Your task to perform on an android device: turn on showing notifications on the lock screen Image 0: 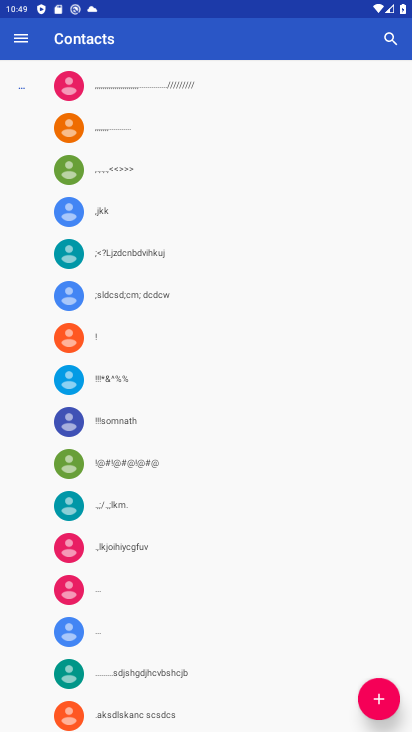
Step 0: press home button
Your task to perform on an android device: turn on showing notifications on the lock screen Image 1: 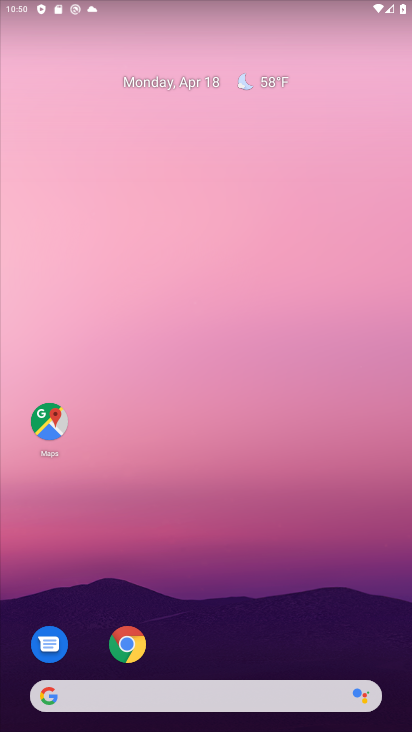
Step 1: drag from (163, 634) to (181, 208)
Your task to perform on an android device: turn on showing notifications on the lock screen Image 2: 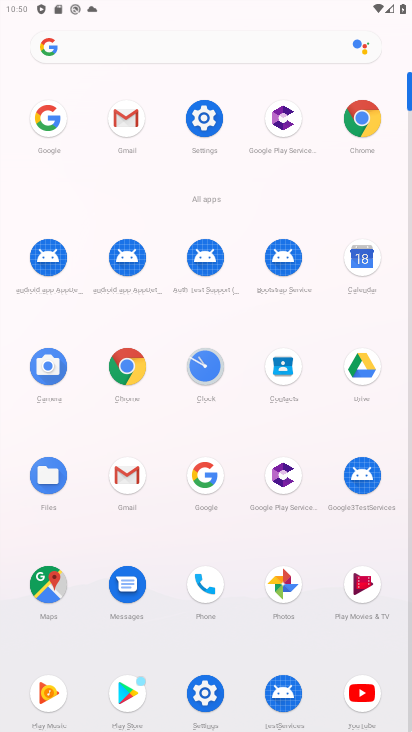
Step 2: click (188, 125)
Your task to perform on an android device: turn on showing notifications on the lock screen Image 3: 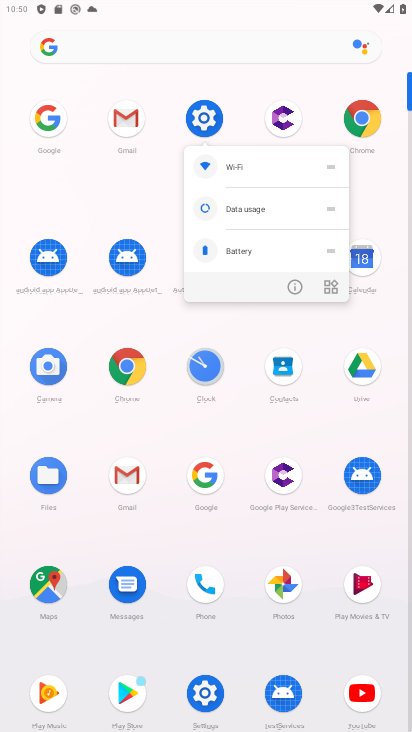
Step 3: click (293, 280)
Your task to perform on an android device: turn on showing notifications on the lock screen Image 4: 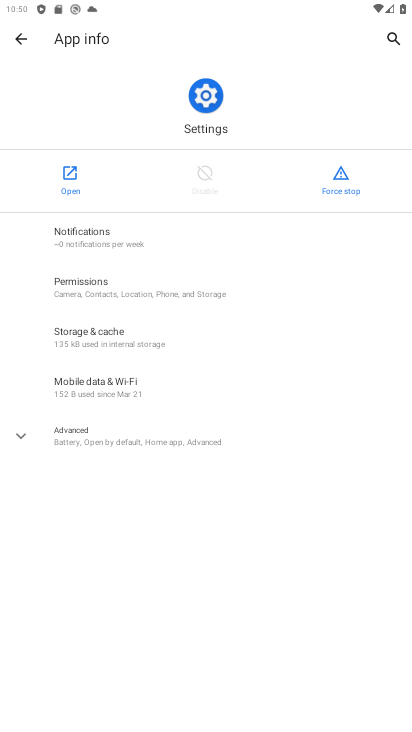
Step 4: click (63, 187)
Your task to perform on an android device: turn on showing notifications on the lock screen Image 5: 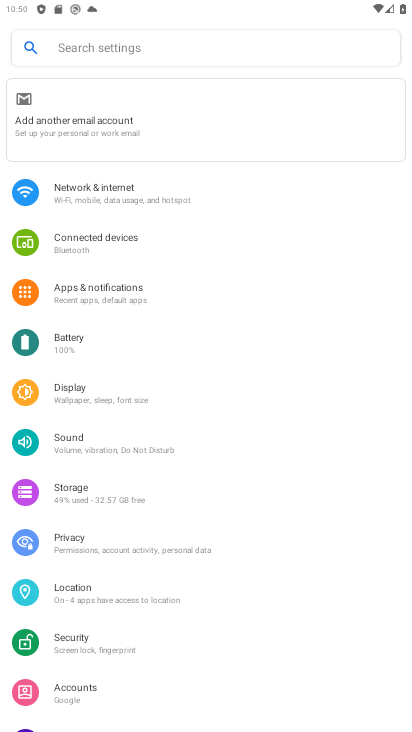
Step 5: click (130, 296)
Your task to perform on an android device: turn on showing notifications on the lock screen Image 6: 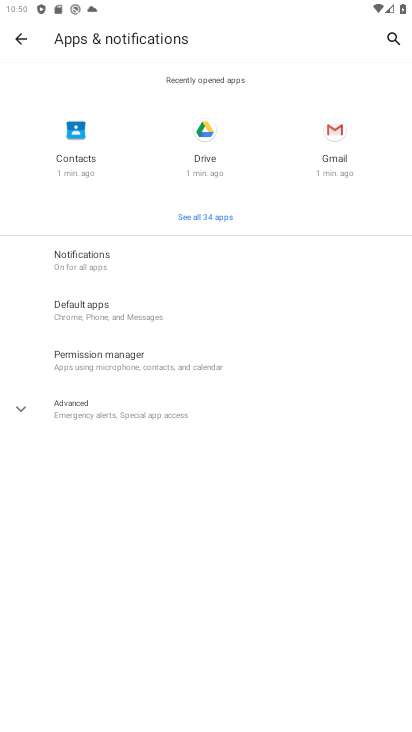
Step 6: click (105, 270)
Your task to perform on an android device: turn on showing notifications on the lock screen Image 7: 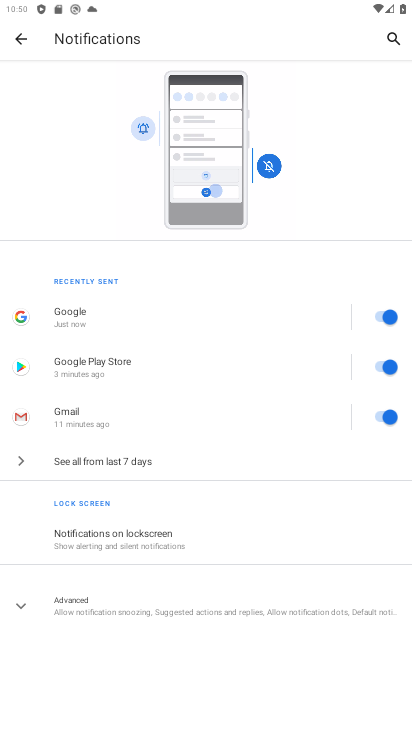
Step 7: click (151, 553)
Your task to perform on an android device: turn on showing notifications on the lock screen Image 8: 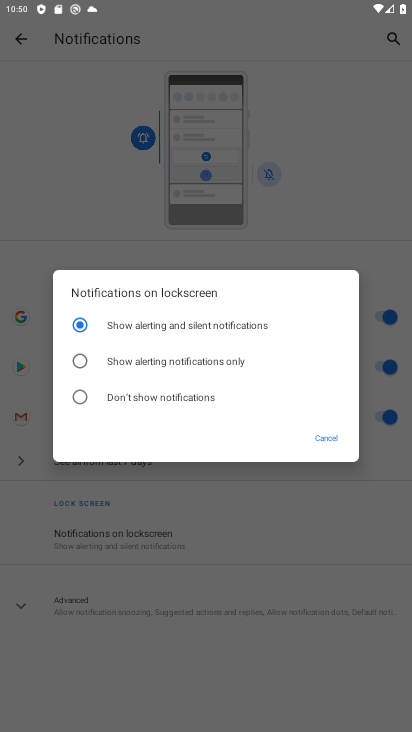
Step 8: task complete